Your task to perform on an android device: turn off sleep mode Image 0: 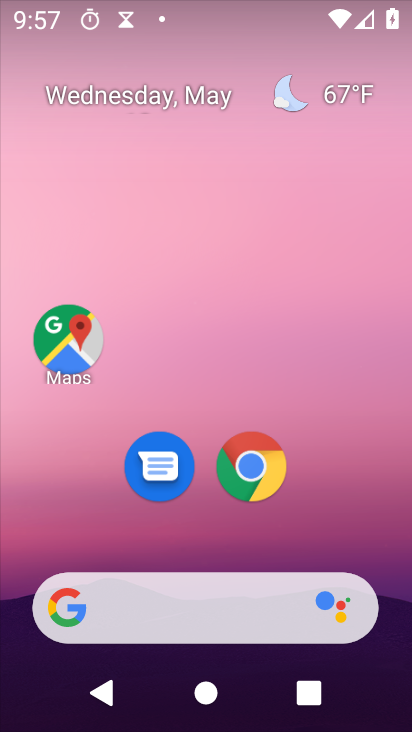
Step 0: drag from (298, 546) to (219, 66)
Your task to perform on an android device: turn off sleep mode Image 1: 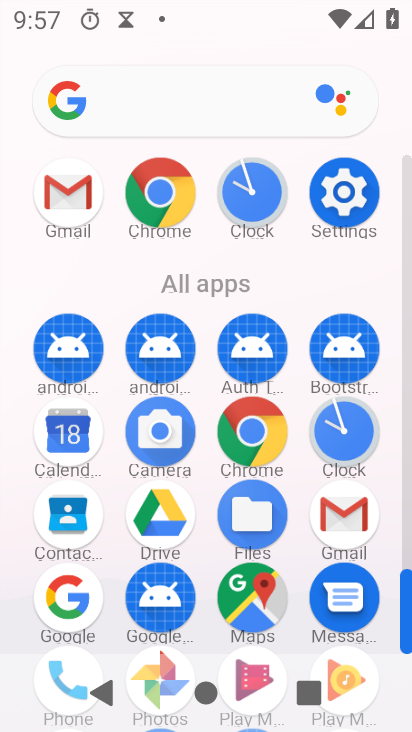
Step 1: click (353, 194)
Your task to perform on an android device: turn off sleep mode Image 2: 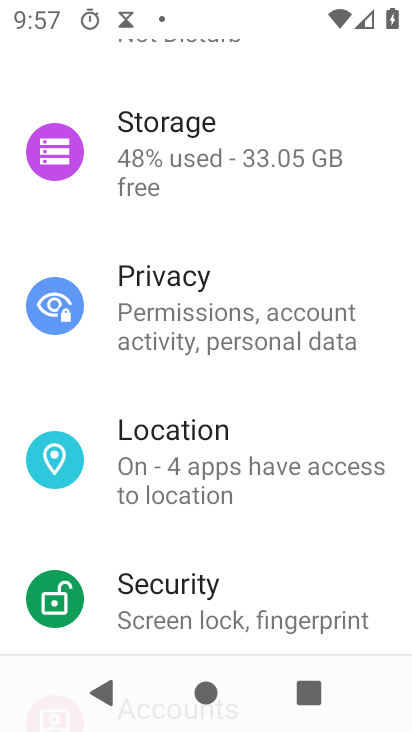
Step 2: task complete